Your task to perform on an android device: delete the emails in spam in the gmail app Image 0: 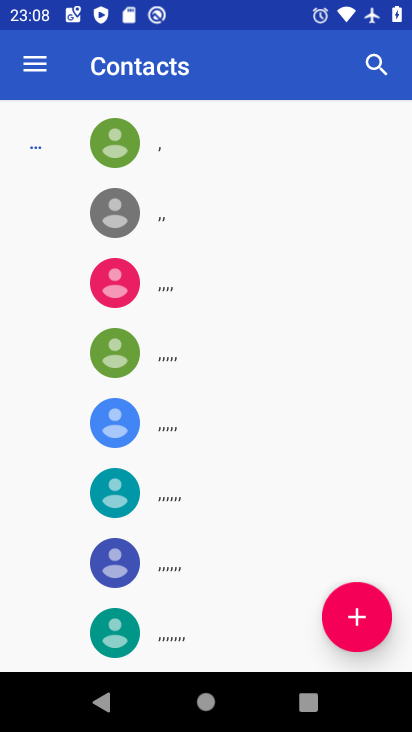
Step 0: press home button
Your task to perform on an android device: delete the emails in spam in the gmail app Image 1: 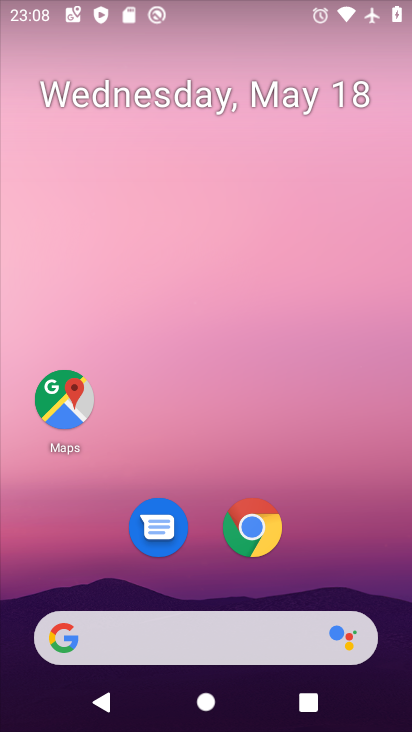
Step 1: drag from (398, 509) to (342, 98)
Your task to perform on an android device: delete the emails in spam in the gmail app Image 2: 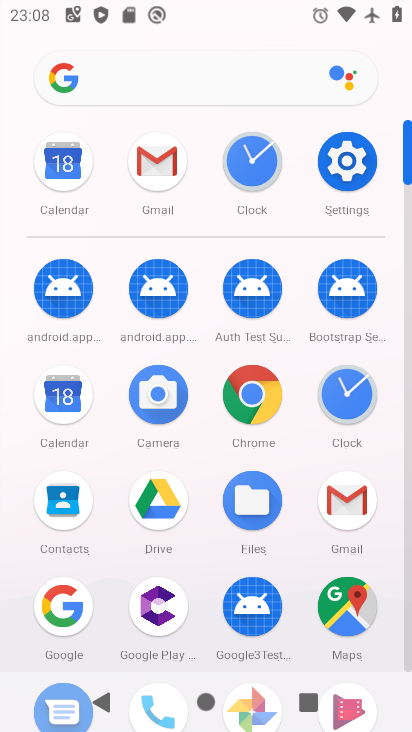
Step 2: click (139, 159)
Your task to perform on an android device: delete the emails in spam in the gmail app Image 3: 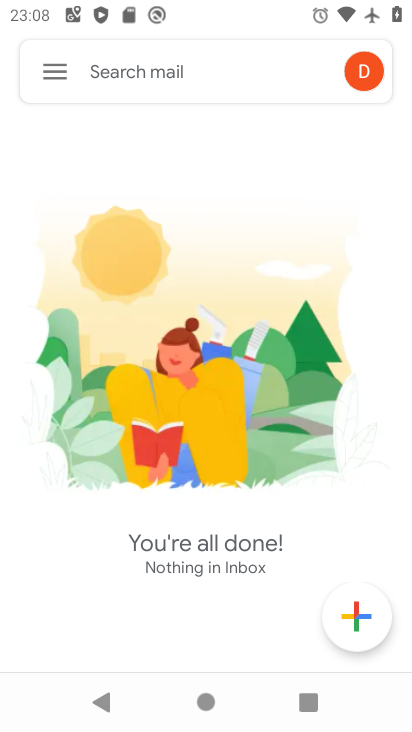
Step 3: click (48, 79)
Your task to perform on an android device: delete the emails in spam in the gmail app Image 4: 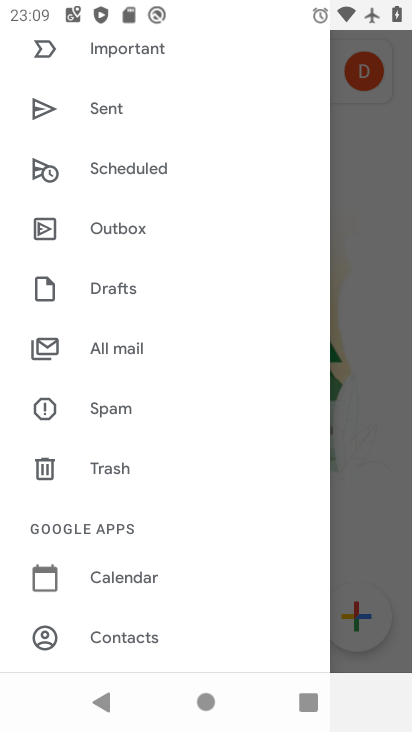
Step 4: drag from (135, 502) to (112, 361)
Your task to perform on an android device: delete the emails in spam in the gmail app Image 5: 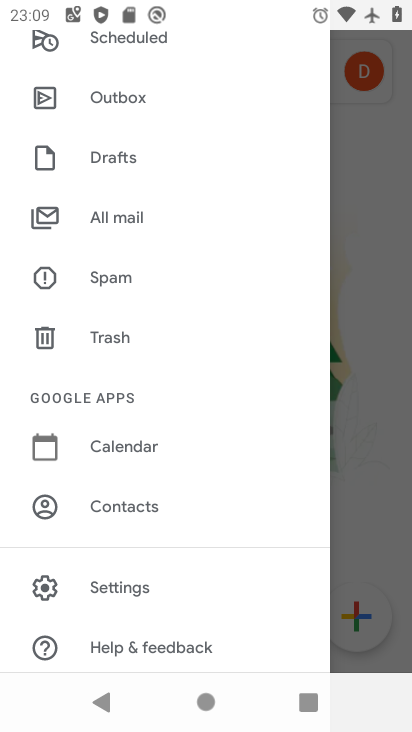
Step 5: click (107, 194)
Your task to perform on an android device: delete the emails in spam in the gmail app Image 6: 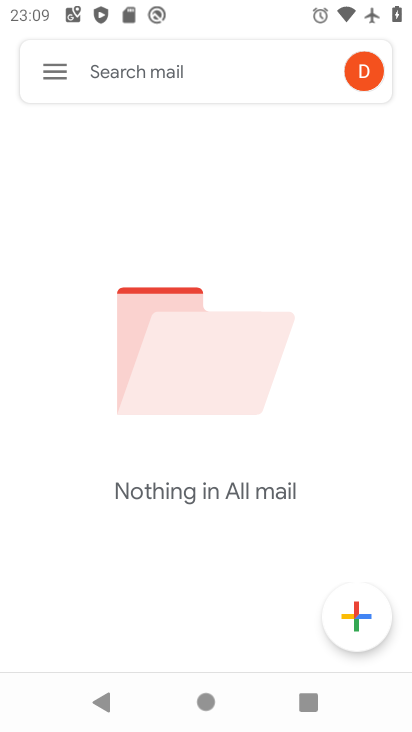
Step 6: task complete